Your task to perform on an android device: move a message to another label in the gmail app Image 0: 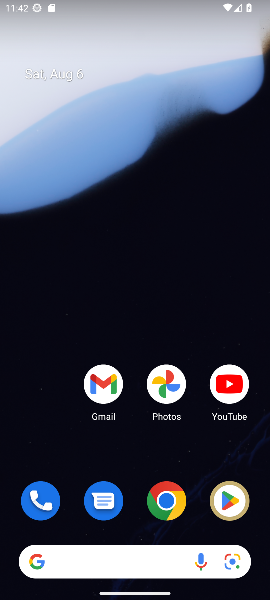
Step 0: press back button
Your task to perform on an android device: move a message to another label in the gmail app Image 1: 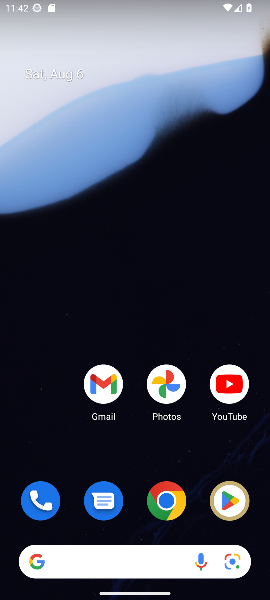
Step 1: click (143, 507)
Your task to perform on an android device: move a message to another label in the gmail app Image 2: 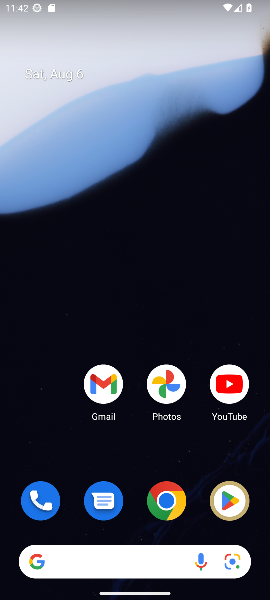
Step 2: click (119, 527)
Your task to perform on an android device: move a message to another label in the gmail app Image 3: 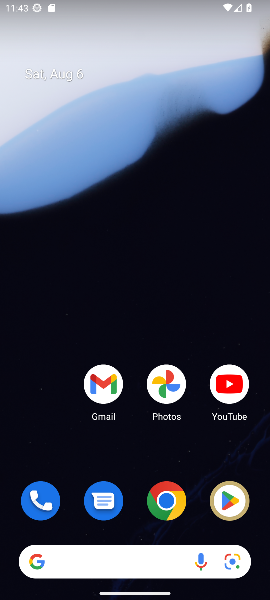
Step 3: click (103, 380)
Your task to perform on an android device: move a message to another label in the gmail app Image 4: 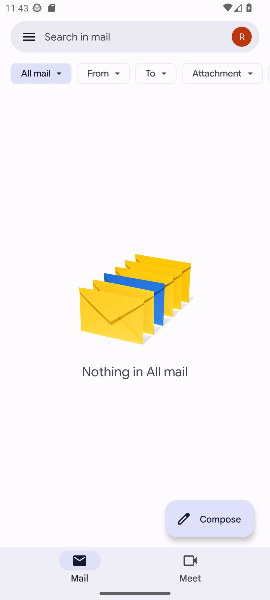
Step 4: task complete